Your task to perform on an android device: Clear all items from cart on walmart.com. Search for "razer blade" on walmart.com, select the first entry, and add it to the cart. Image 0: 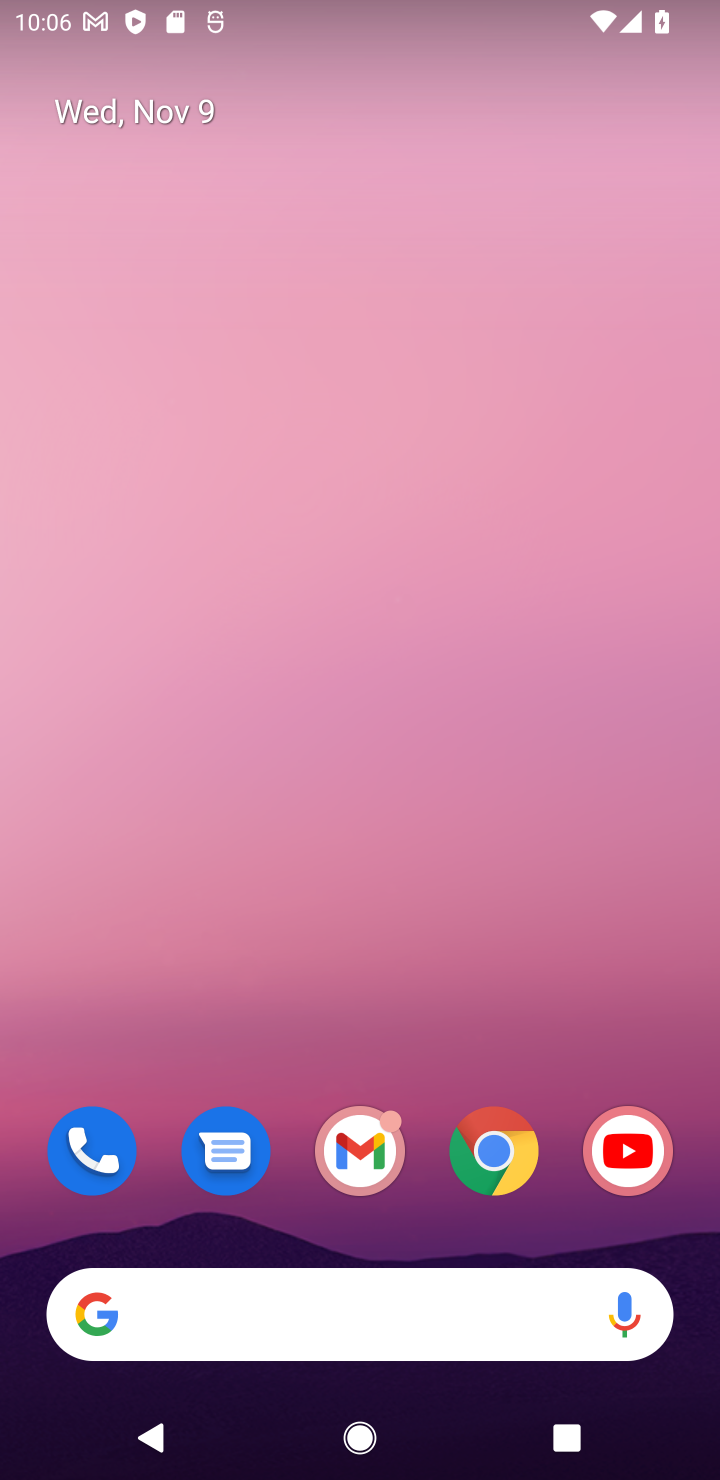
Step 0: click (501, 1143)
Your task to perform on an android device: Clear all items from cart on walmart.com. Search for "razer blade" on walmart.com, select the first entry, and add it to the cart. Image 1: 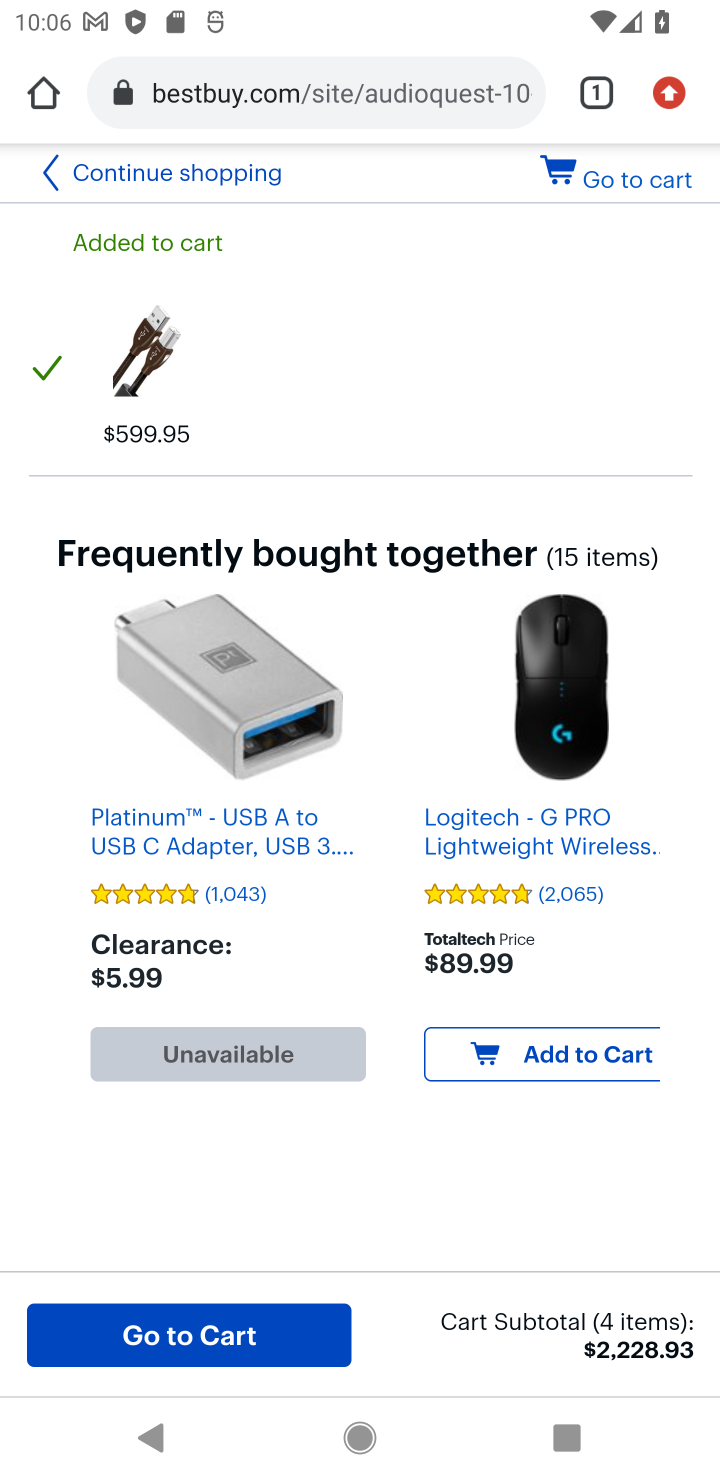
Step 1: click (450, 93)
Your task to perform on an android device: Clear all items from cart on walmart.com. Search for "razer blade" on walmart.com, select the first entry, and add it to the cart. Image 2: 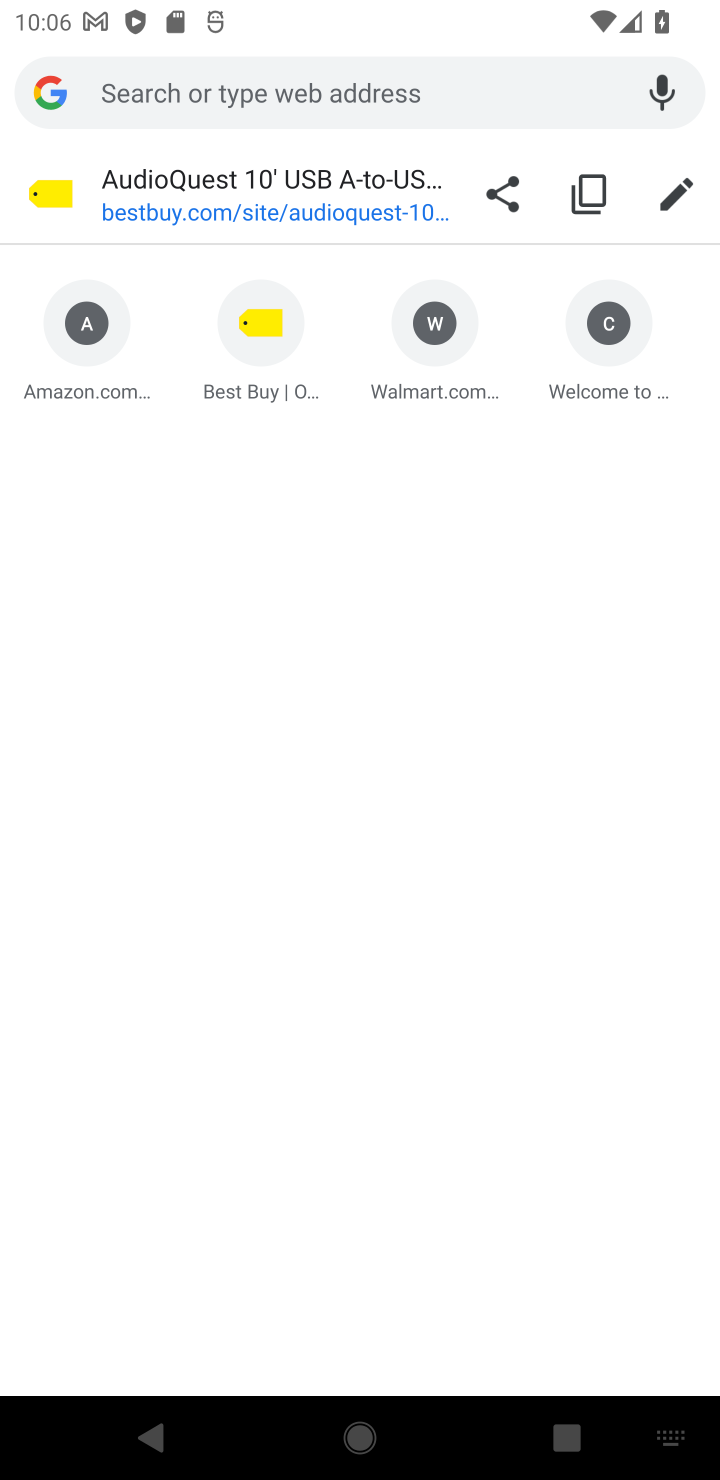
Step 2: type "walmart.com"
Your task to perform on an android device: Clear all items from cart on walmart.com. Search for "razer blade" on walmart.com, select the first entry, and add it to the cart. Image 3: 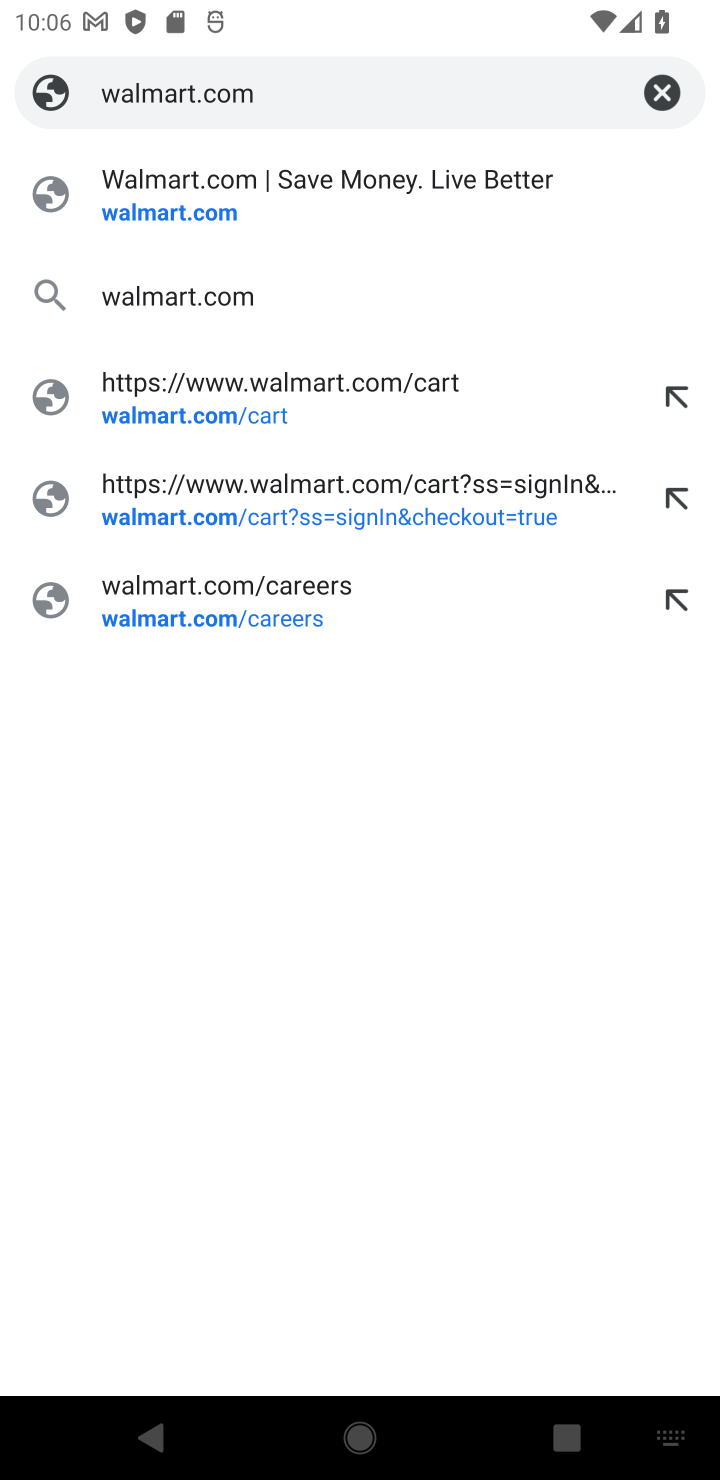
Step 3: click (194, 286)
Your task to perform on an android device: Clear all items from cart on walmart.com. Search for "razer blade" on walmart.com, select the first entry, and add it to the cart. Image 4: 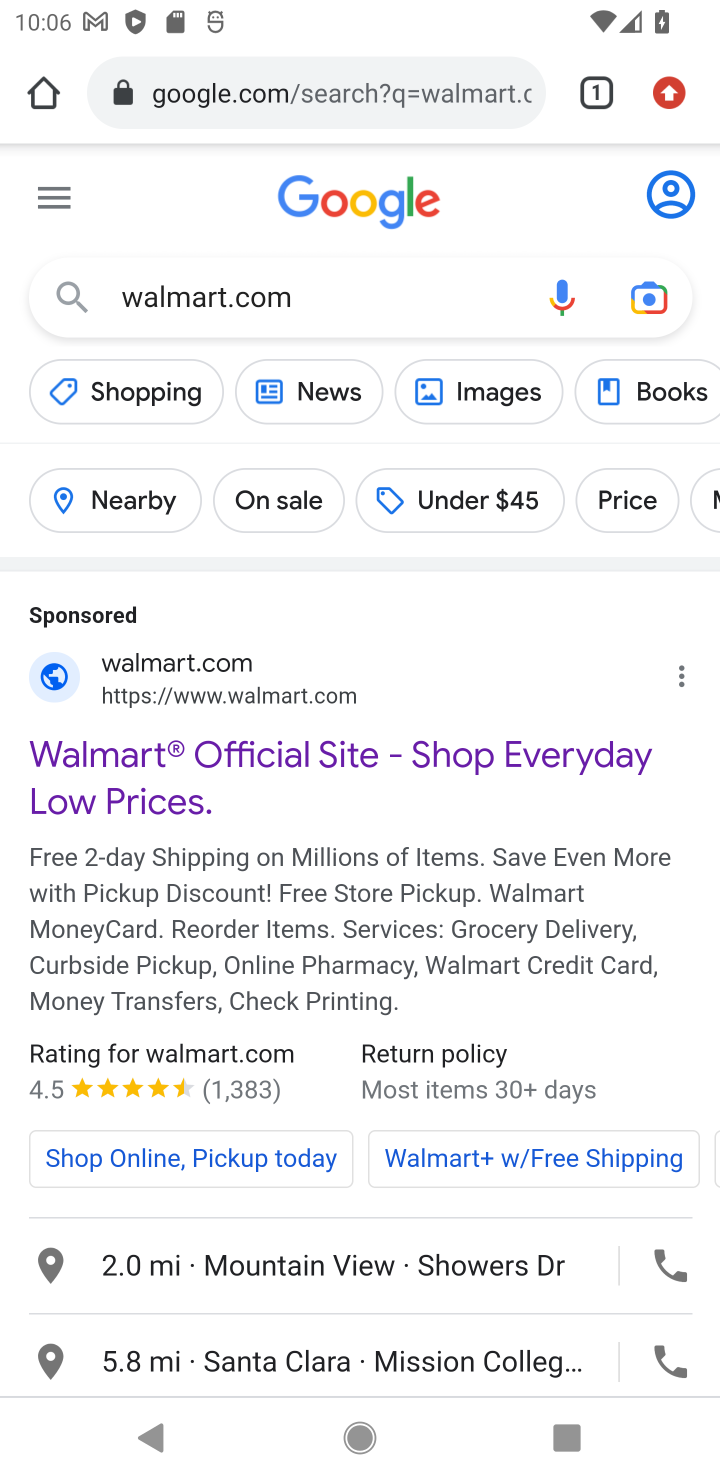
Step 4: click (280, 689)
Your task to perform on an android device: Clear all items from cart on walmart.com. Search for "razer blade" on walmart.com, select the first entry, and add it to the cart. Image 5: 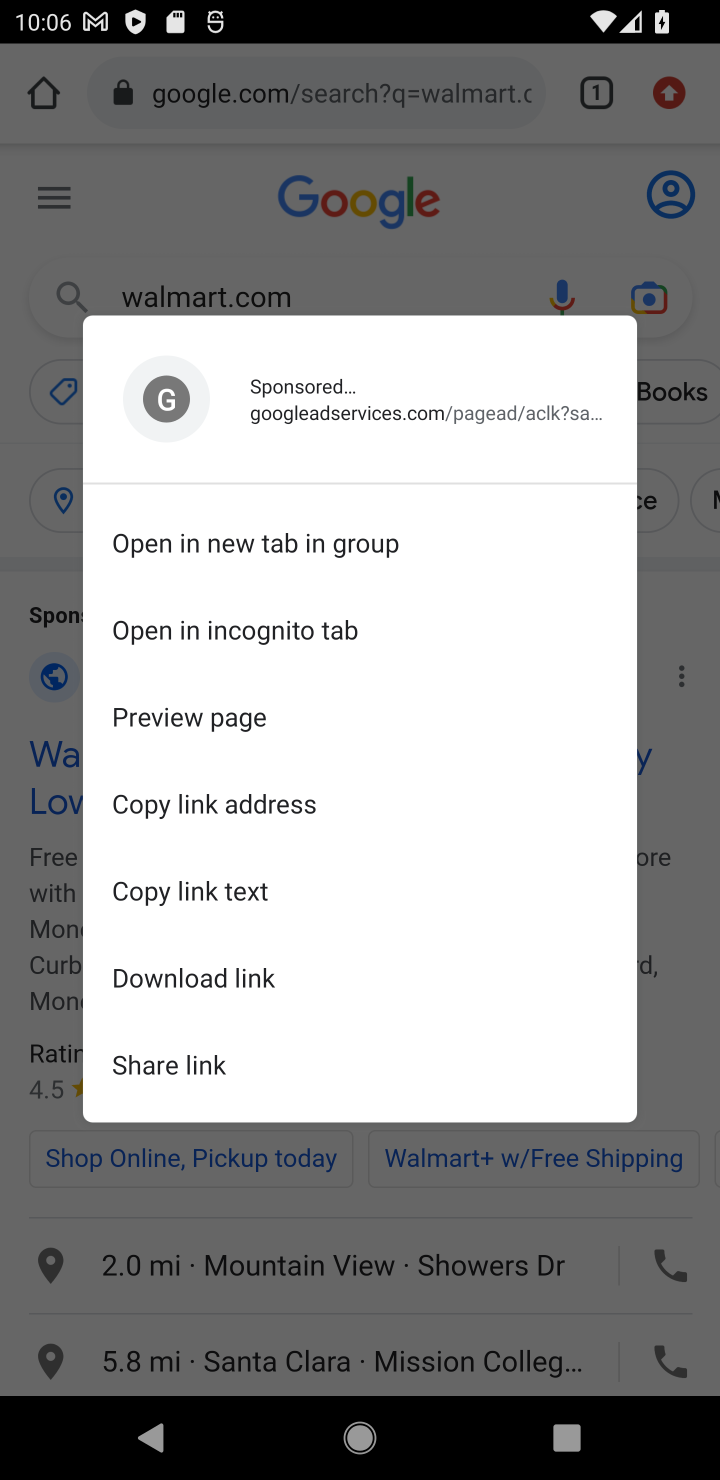
Step 5: click (481, 234)
Your task to perform on an android device: Clear all items from cart on walmart.com. Search for "razer blade" on walmart.com, select the first entry, and add it to the cart. Image 6: 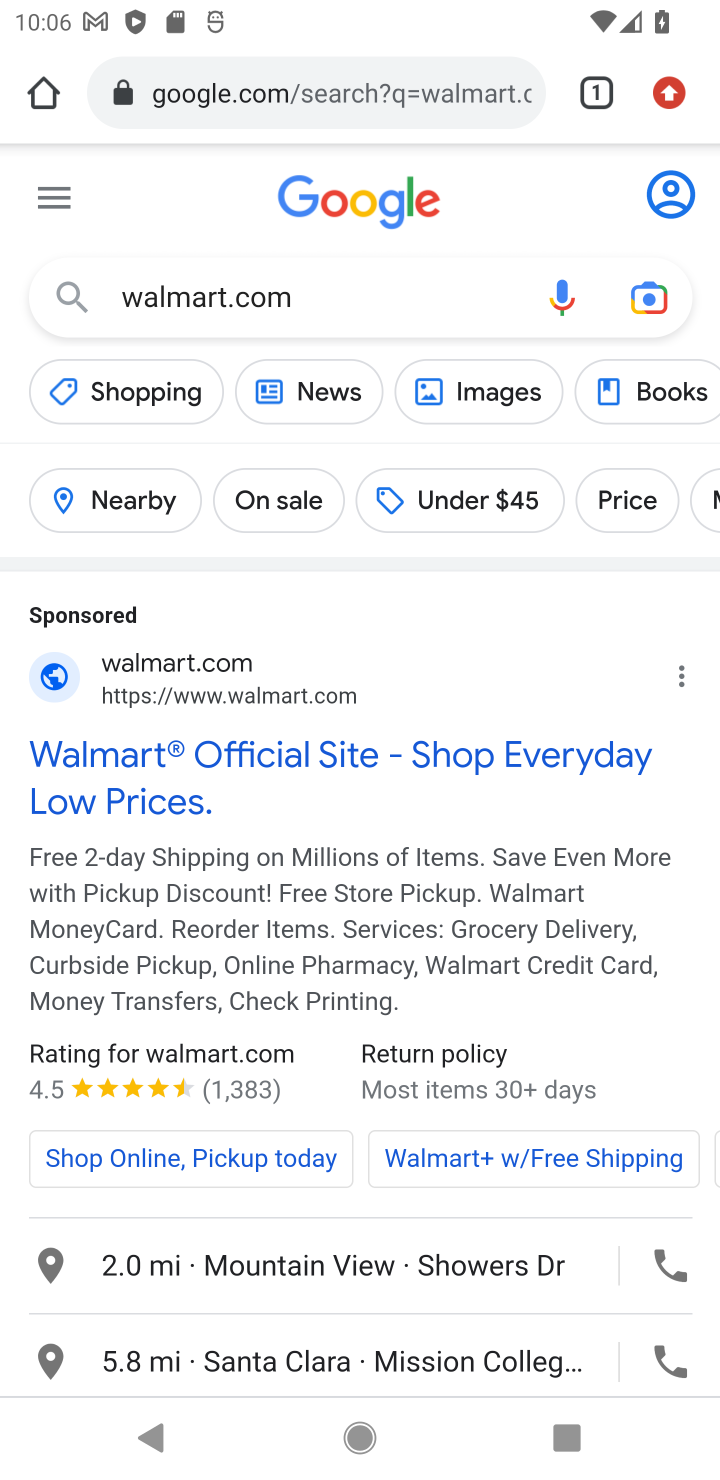
Step 6: click (181, 662)
Your task to perform on an android device: Clear all items from cart on walmart.com. Search for "razer blade" on walmart.com, select the first entry, and add it to the cart. Image 7: 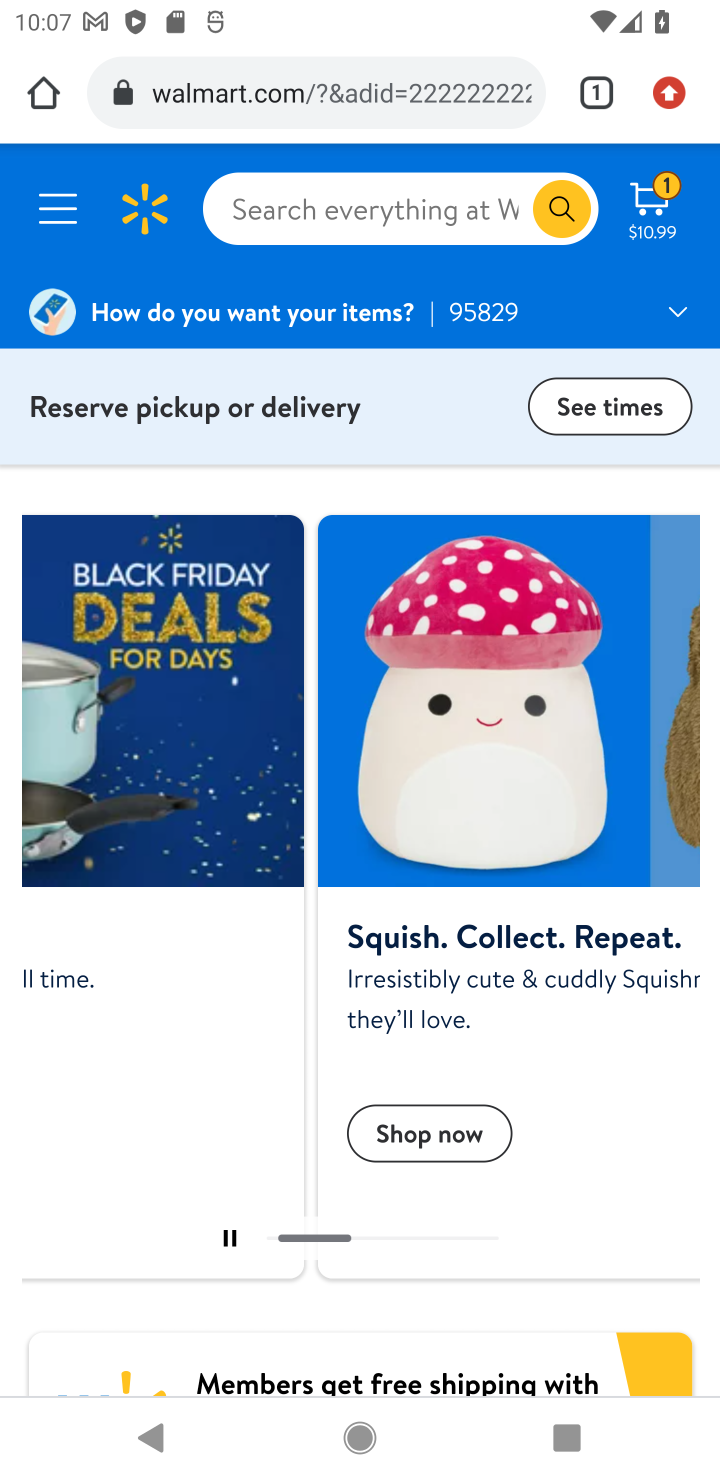
Step 7: click (662, 200)
Your task to perform on an android device: Clear all items from cart on walmart.com. Search for "razer blade" on walmart.com, select the first entry, and add it to the cart. Image 8: 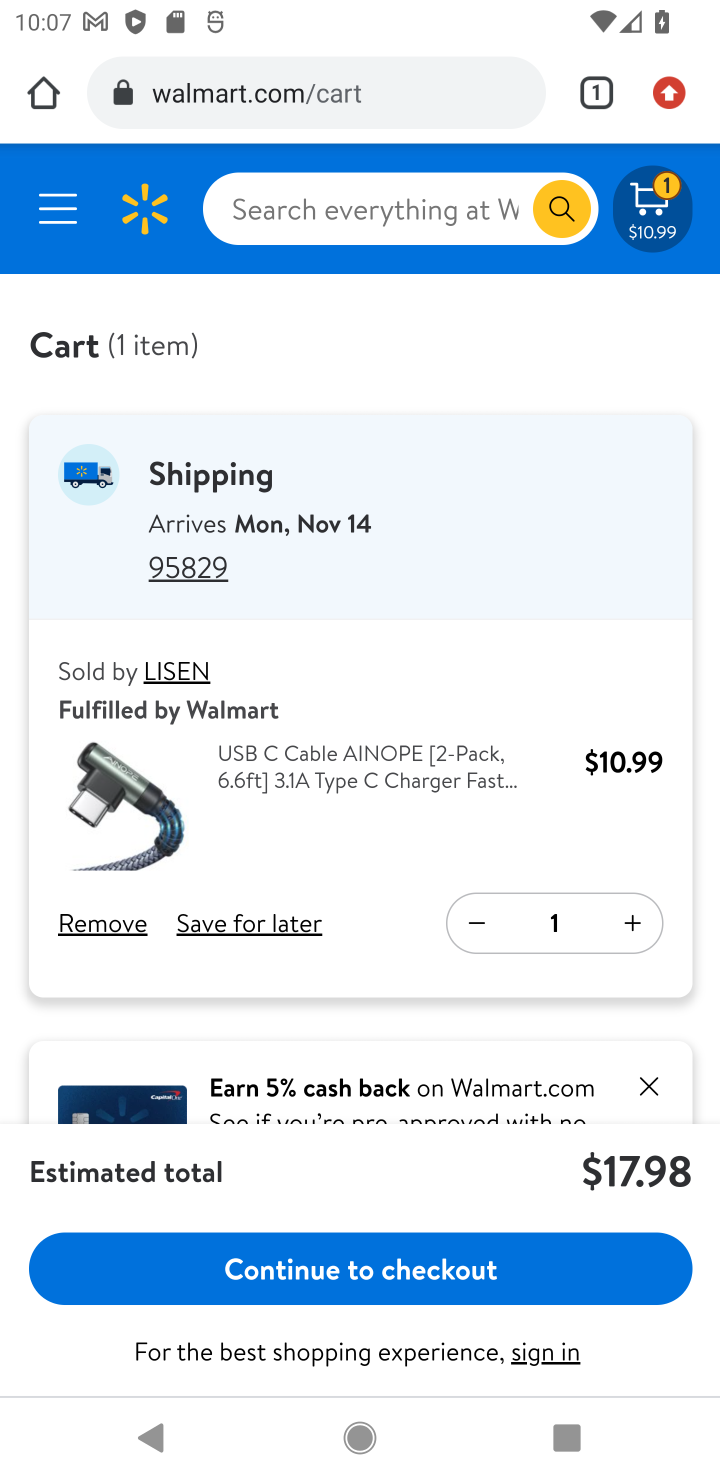
Step 8: click (117, 924)
Your task to perform on an android device: Clear all items from cart on walmart.com. Search for "razer blade" on walmart.com, select the first entry, and add it to the cart. Image 9: 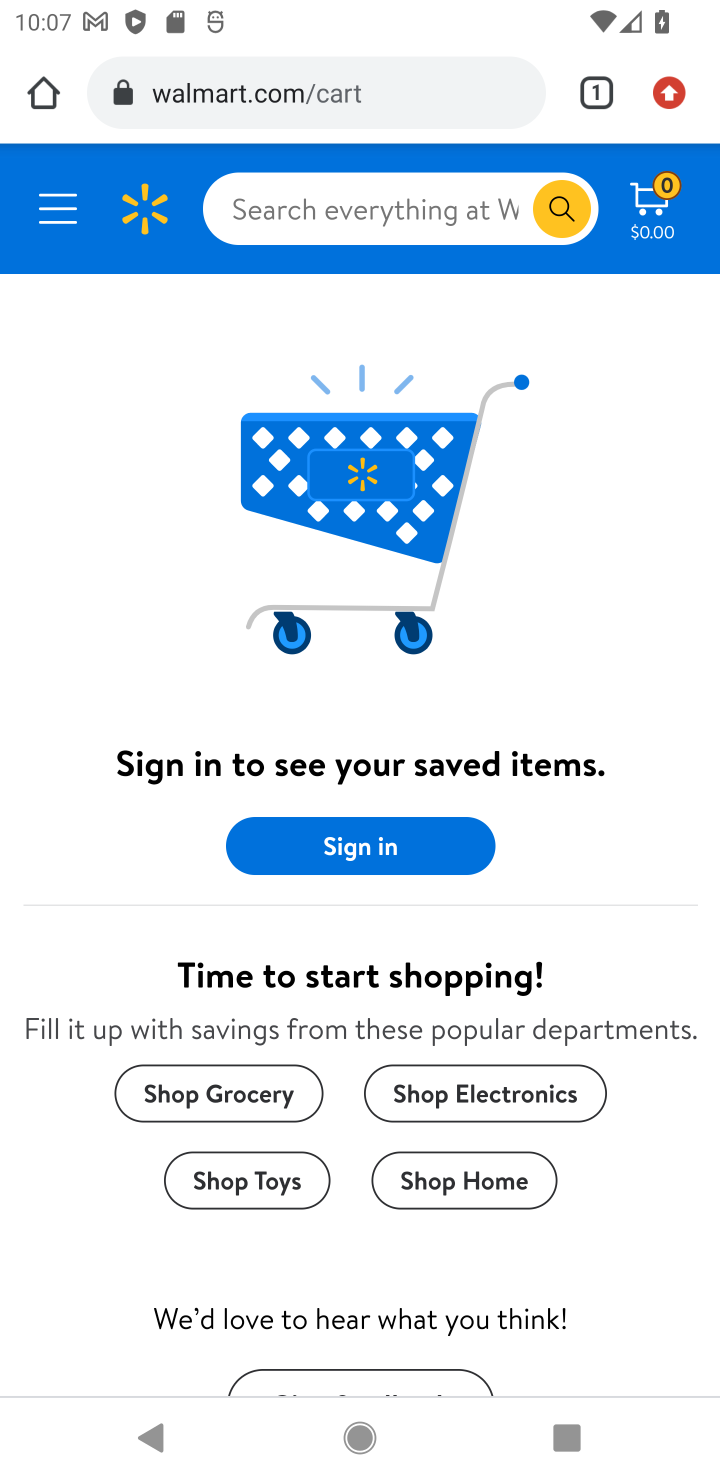
Step 9: click (453, 210)
Your task to perform on an android device: Clear all items from cart on walmart.com. Search for "razer blade" on walmart.com, select the first entry, and add it to the cart. Image 10: 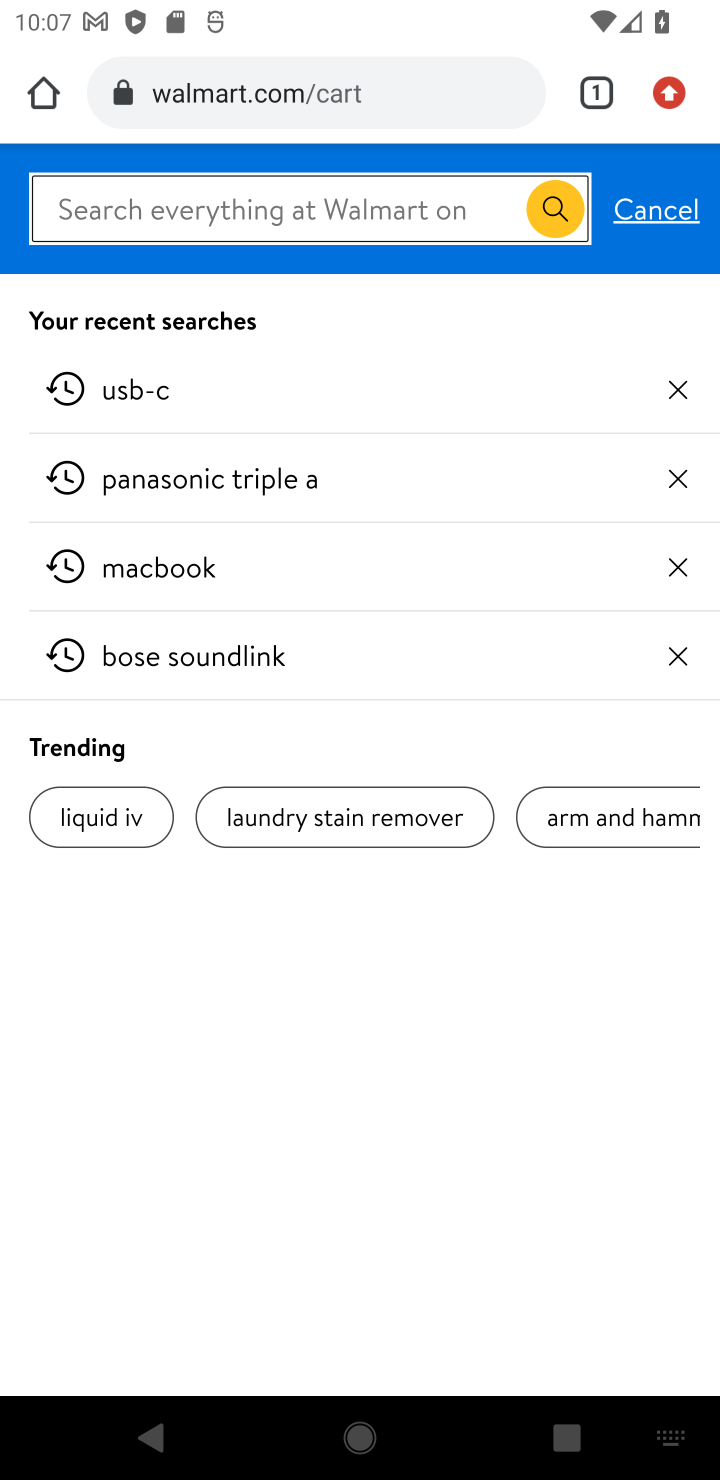
Step 10: type "razer blade"
Your task to perform on an android device: Clear all items from cart on walmart.com. Search for "razer blade" on walmart.com, select the first entry, and add it to the cart. Image 11: 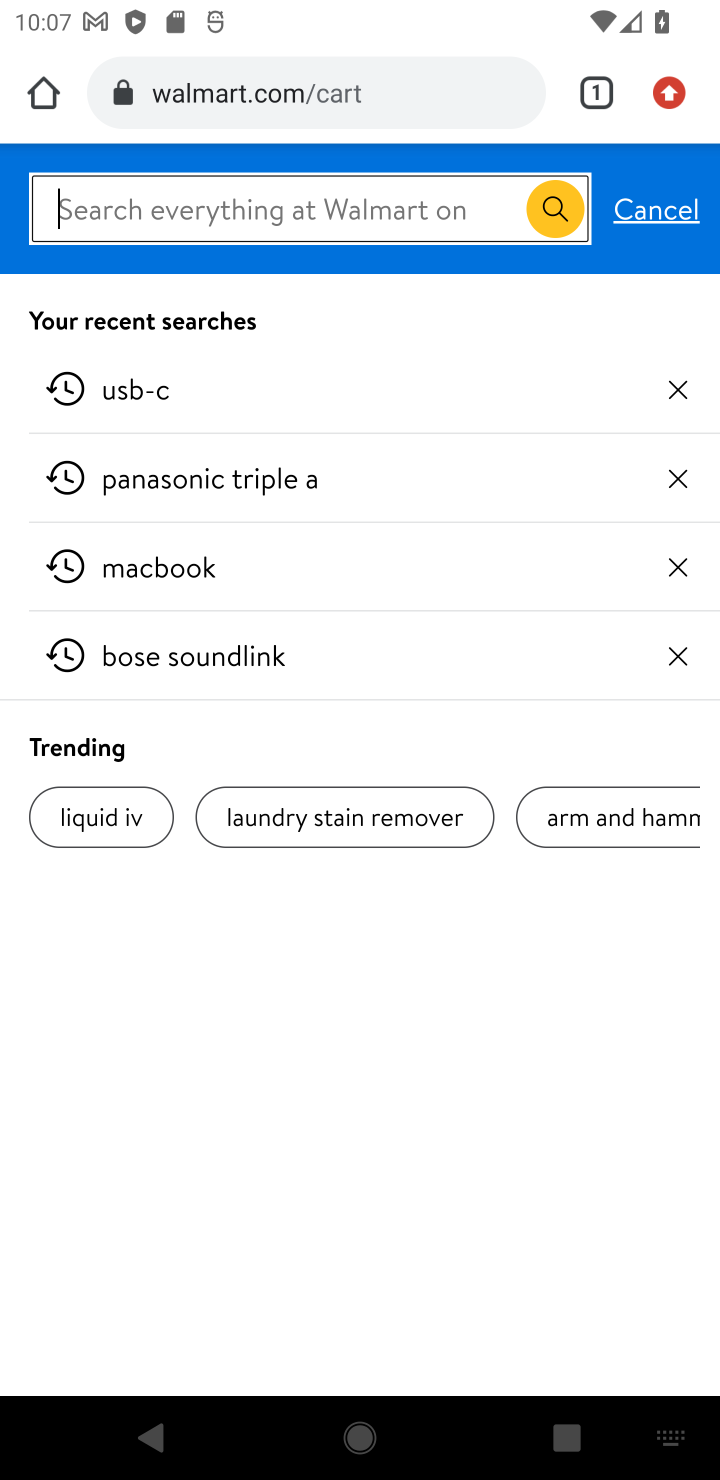
Step 11: press enter
Your task to perform on an android device: Clear all items from cart on walmart.com. Search for "razer blade" on walmart.com, select the first entry, and add it to the cart. Image 12: 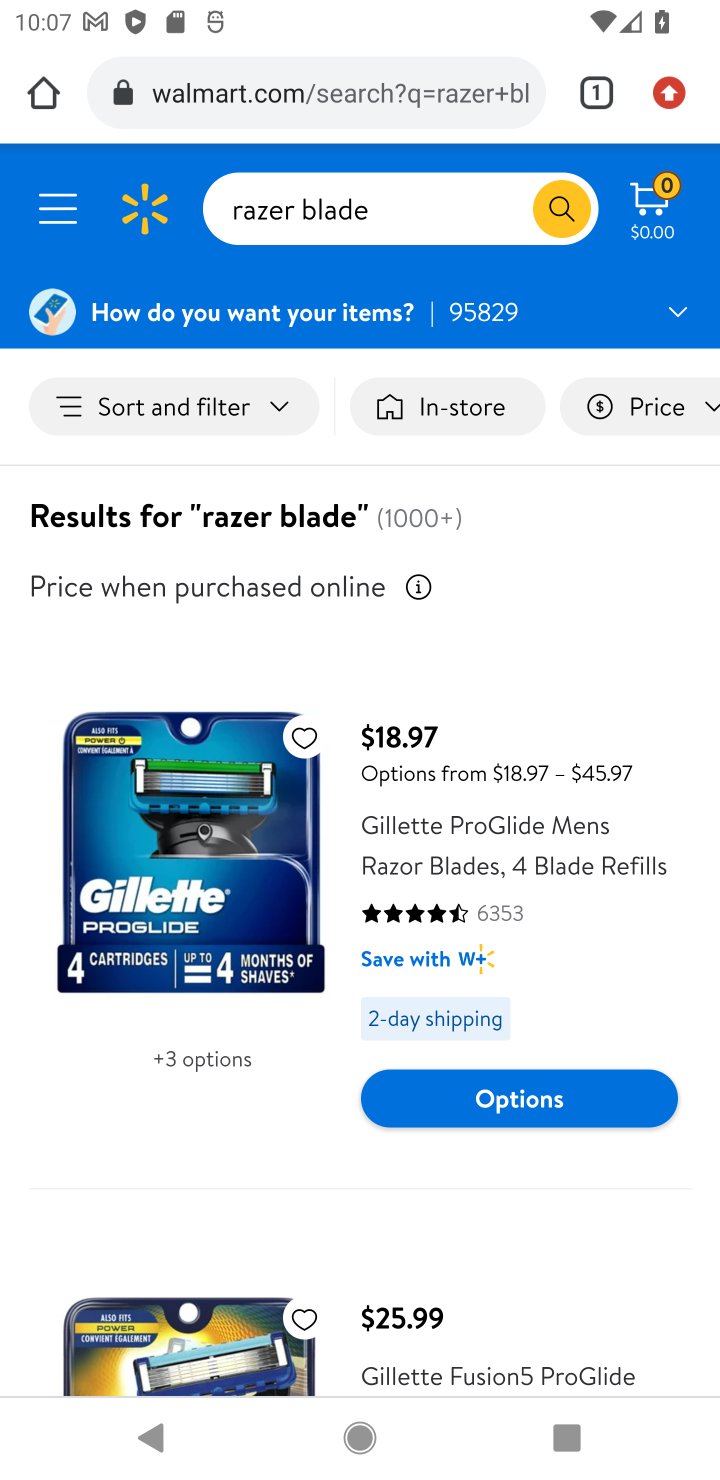
Step 12: task complete